Your task to perform on an android device: Open Google Maps Image 0: 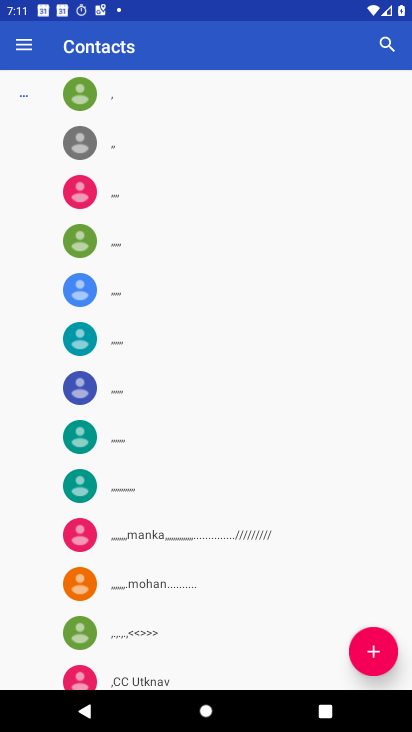
Step 0: press back button
Your task to perform on an android device: Open Google Maps Image 1: 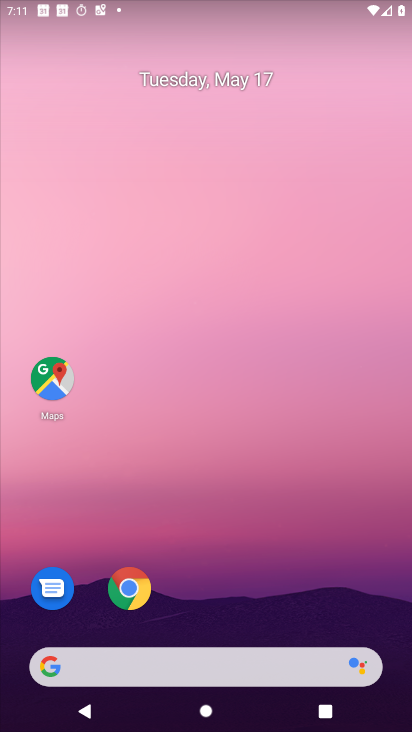
Step 1: click (51, 380)
Your task to perform on an android device: Open Google Maps Image 2: 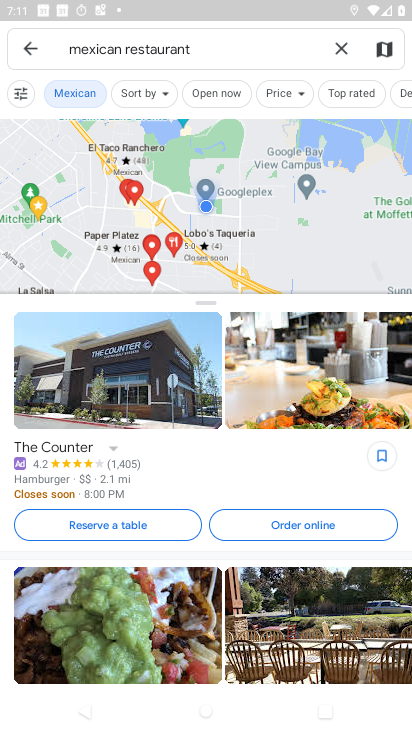
Step 2: click (340, 50)
Your task to perform on an android device: Open Google Maps Image 3: 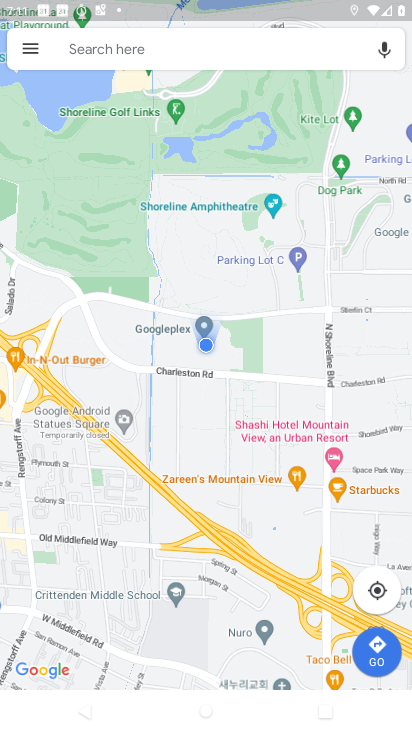
Step 3: task complete